Your task to perform on an android device: Open sound settings Image 0: 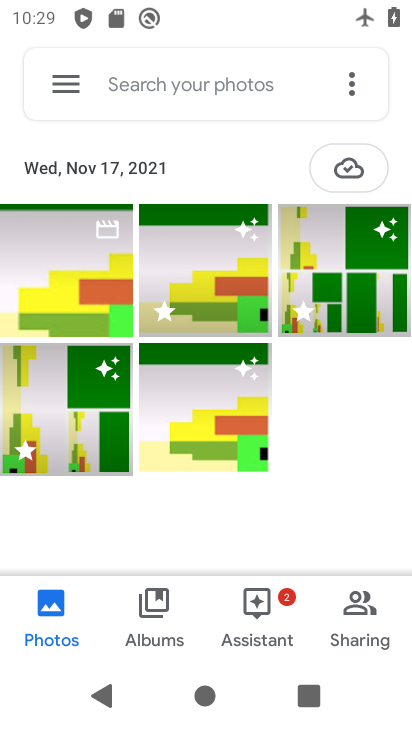
Step 0: press back button
Your task to perform on an android device: Open sound settings Image 1: 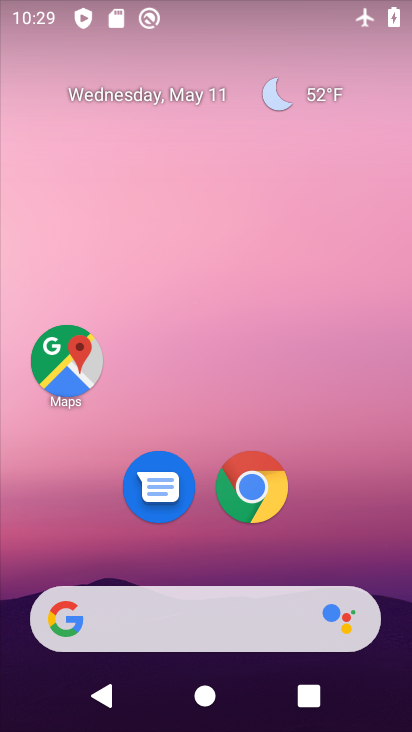
Step 1: drag from (352, 496) to (254, 9)
Your task to perform on an android device: Open sound settings Image 2: 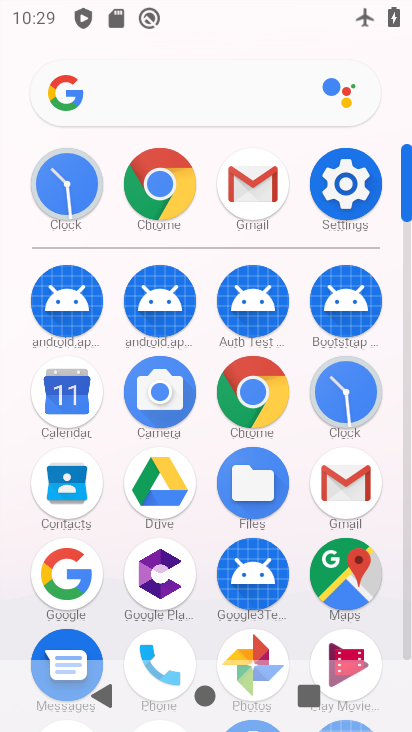
Step 2: click (344, 182)
Your task to perform on an android device: Open sound settings Image 3: 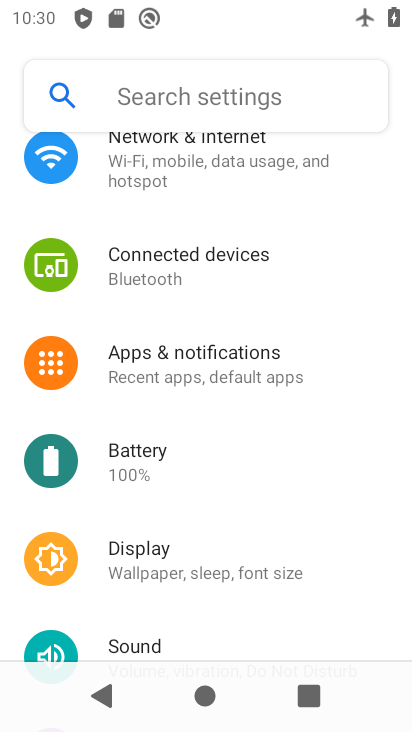
Step 3: drag from (276, 544) to (293, 241)
Your task to perform on an android device: Open sound settings Image 4: 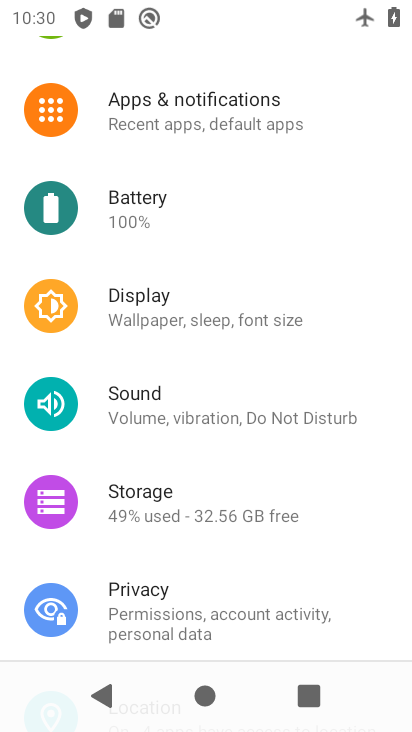
Step 4: click (173, 393)
Your task to perform on an android device: Open sound settings Image 5: 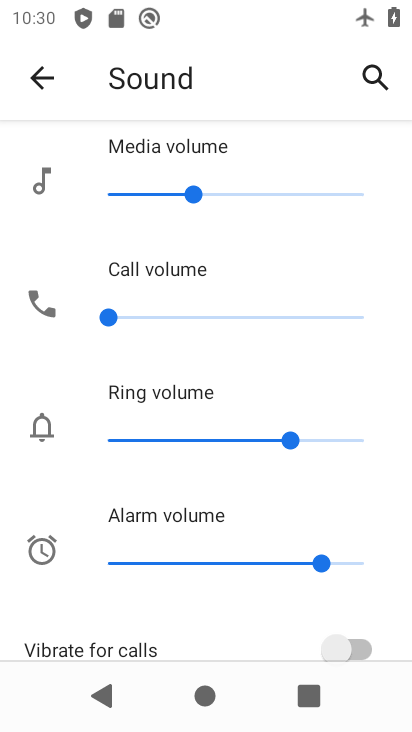
Step 5: task complete